Your task to perform on an android device: Show me popular videos on Youtube Image 0: 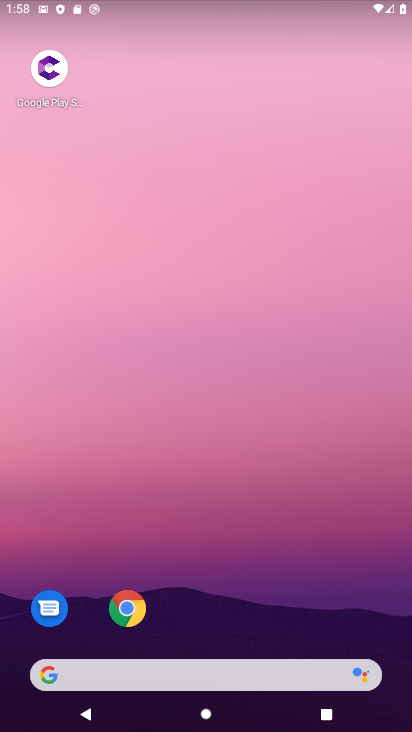
Step 0: drag from (11, 599) to (187, 40)
Your task to perform on an android device: Show me popular videos on Youtube Image 1: 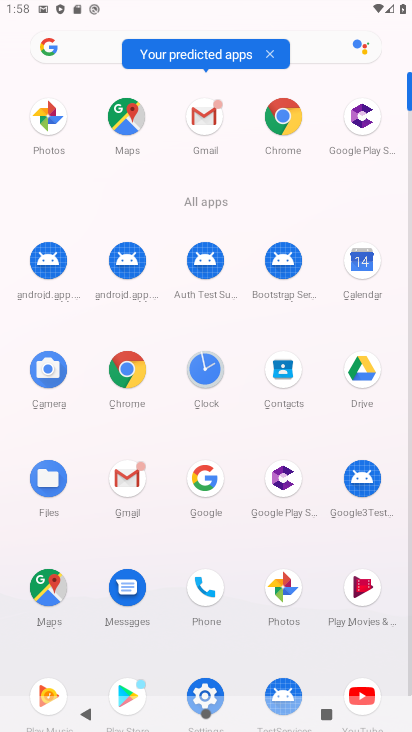
Step 1: click (372, 686)
Your task to perform on an android device: Show me popular videos on Youtube Image 2: 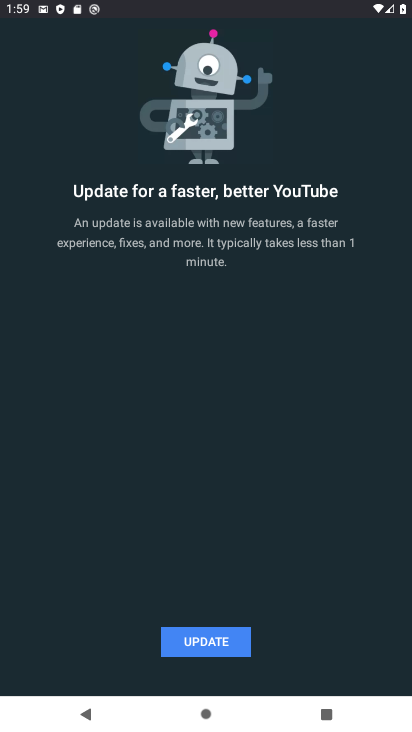
Step 2: task complete